Your task to perform on an android device: set an alarm Image 0: 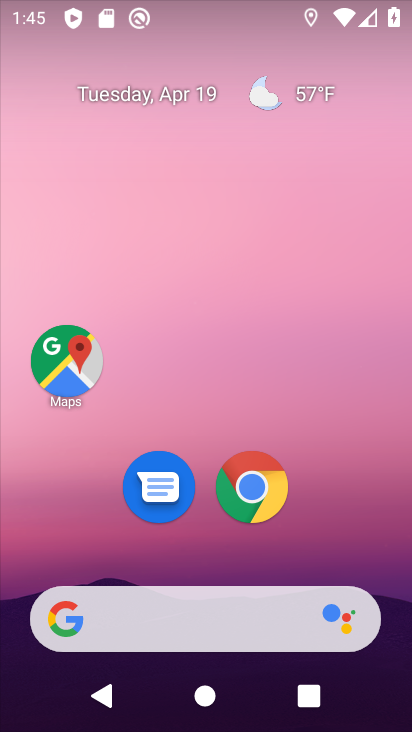
Step 0: drag from (360, 71) to (362, 17)
Your task to perform on an android device: set an alarm Image 1: 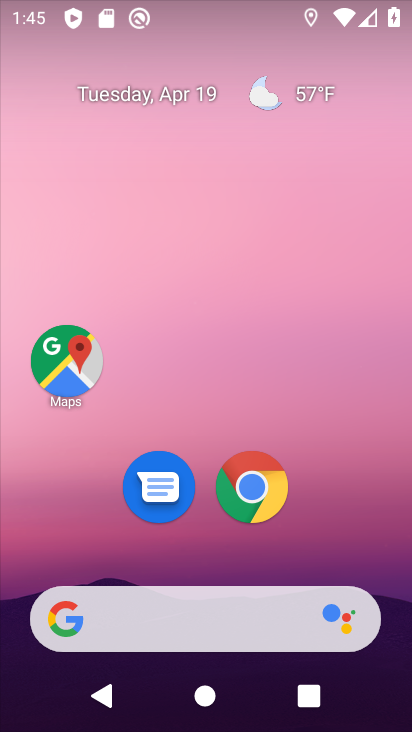
Step 1: drag from (339, 356) to (336, 97)
Your task to perform on an android device: set an alarm Image 2: 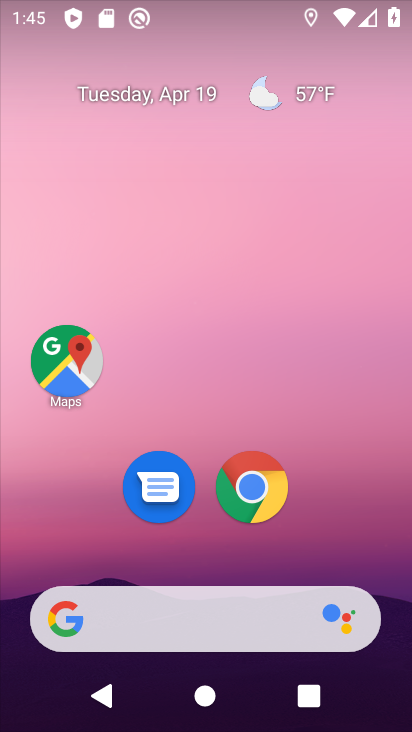
Step 2: drag from (379, 547) to (369, 72)
Your task to perform on an android device: set an alarm Image 3: 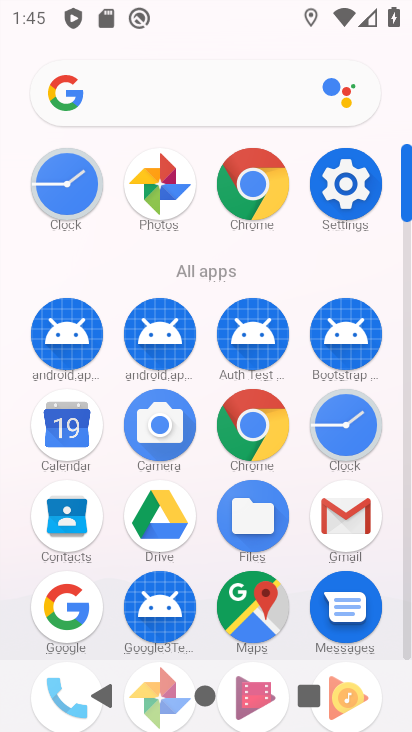
Step 3: click (359, 393)
Your task to perform on an android device: set an alarm Image 4: 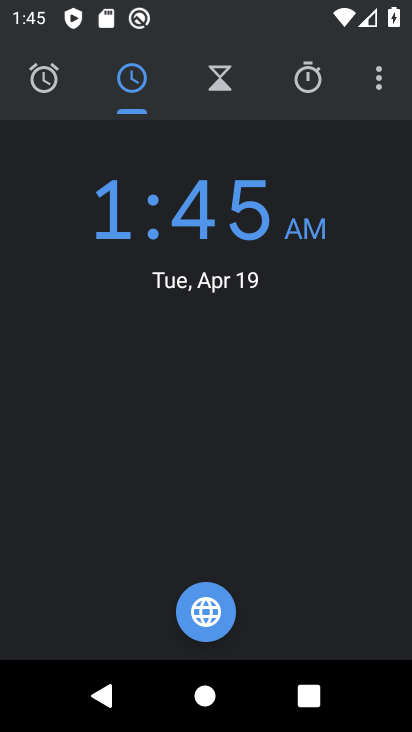
Step 4: click (40, 81)
Your task to perform on an android device: set an alarm Image 5: 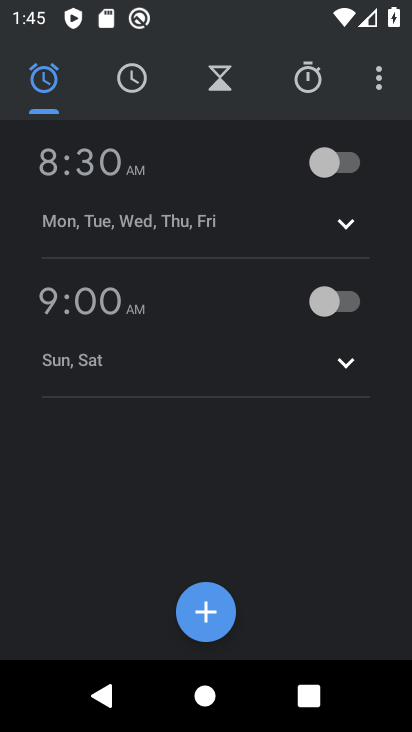
Step 5: click (220, 608)
Your task to perform on an android device: set an alarm Image 6: 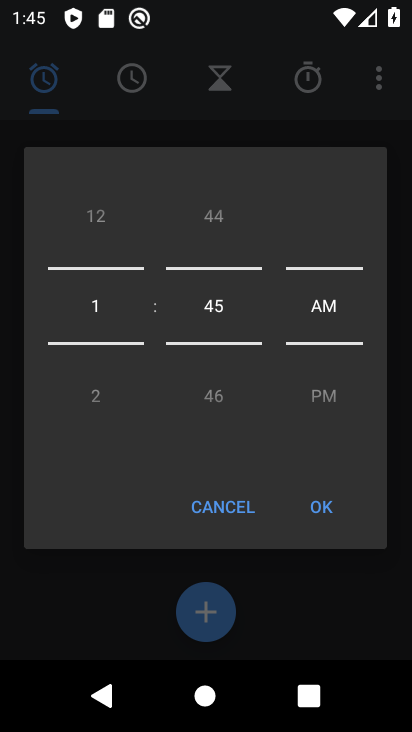
Step 6: click (319, 514)
Your task to perform on an android device: set an alarm Image 7: 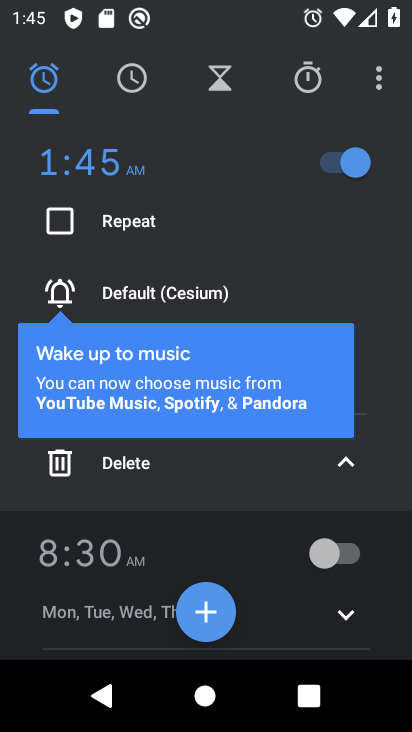
Step 7: task complete